Your task to perform on an android device: open a bookmark in the chrome app Image 0: 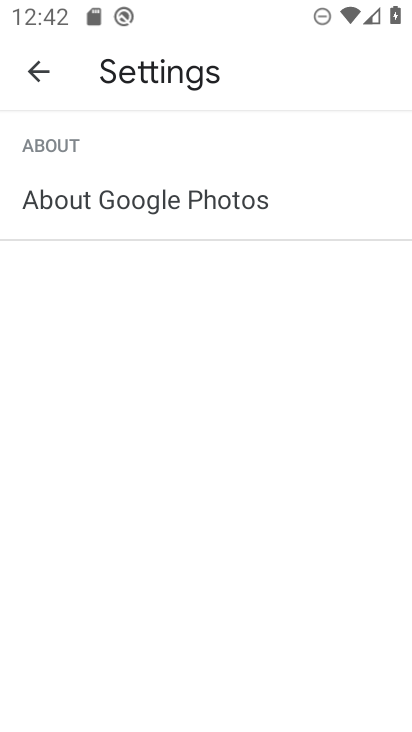
Step 0: press home button
Your task to perform on an android device: open a bookmark in the chrome app Image 1: 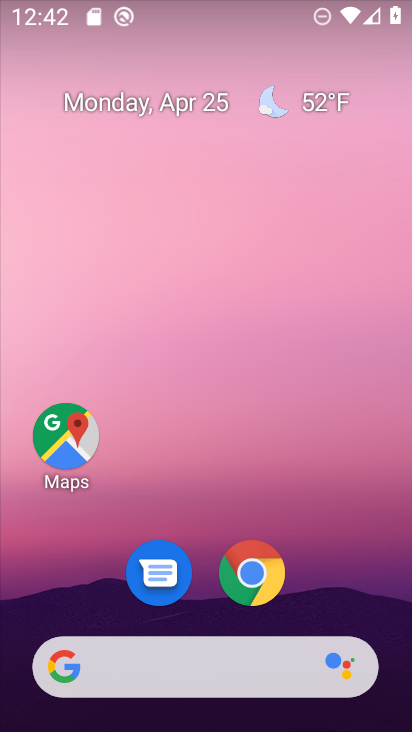
Step 1: click (255, 571)
Your task to perform on an android device: open a bookmark in the chrome app Image 2: 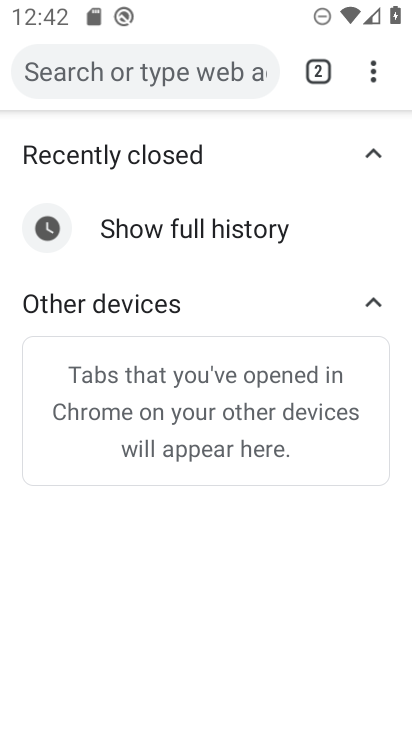
Step 2: click (374, 80)
Your task to perform on an android device: open a bookmark in the chrome app Image 3: 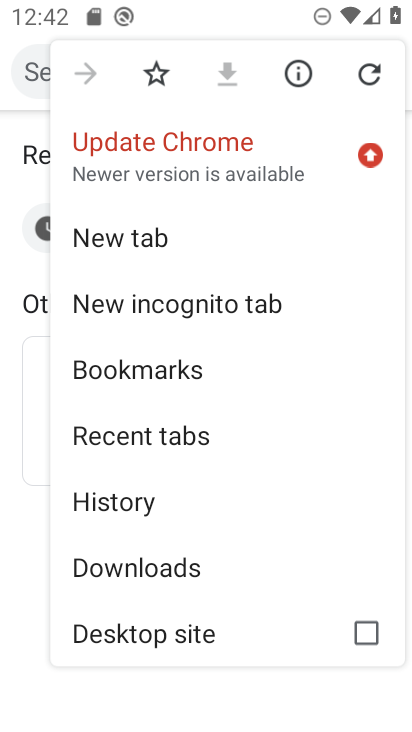
Step 3: click (132, 367)
Your task to perform on an android device: open a bookmark in the chrome app Image 4: 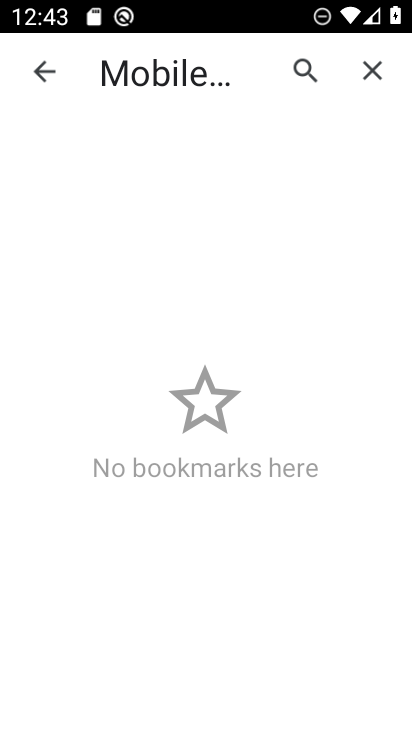
Step 4: task complete